Your task to perform on an android device: snooze an email in the gmail app Image 0: 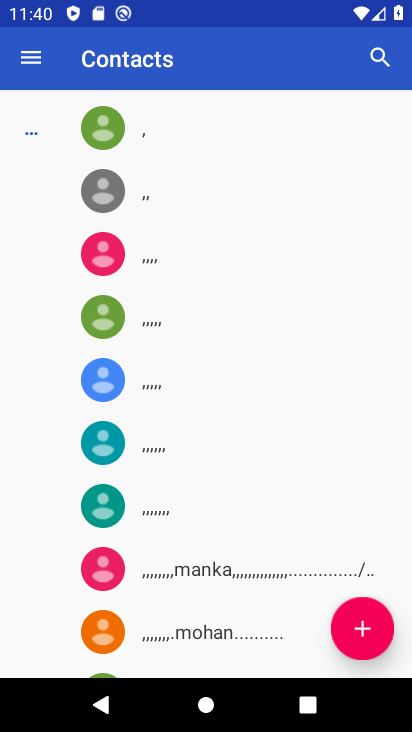
Step 0: press home button
Your task to perform on an android device: snooze an email in the gmail app Image 1: 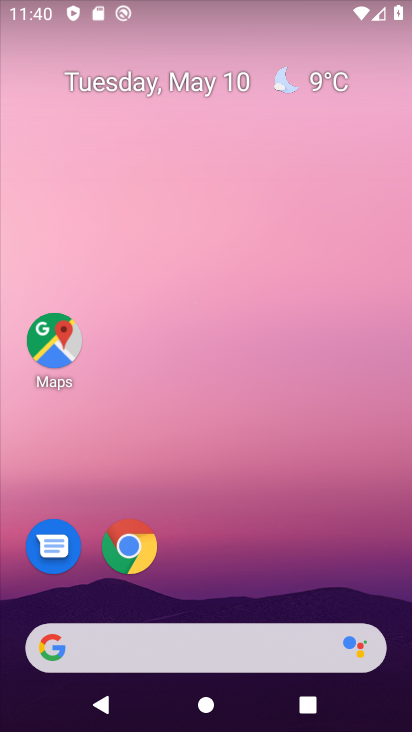
Step 1: drag from (201, 595) to (261, 49)
Your task to perform on an android device: snooze an email in the gmail app Image 2: 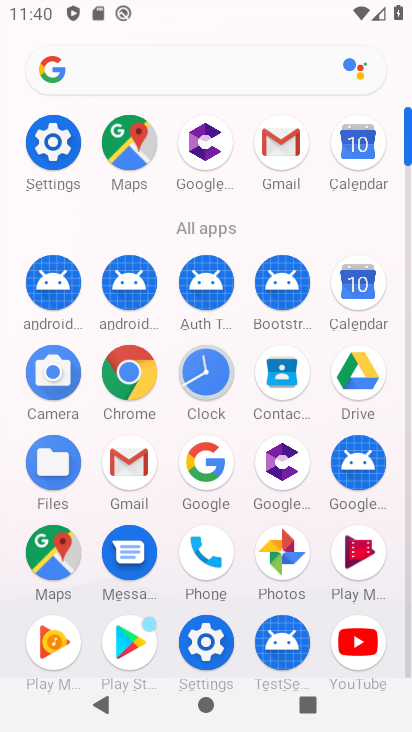
Step 2: click (283, 154)
Your task to perform on an android device: snooze an email in the gmail app Image 3: 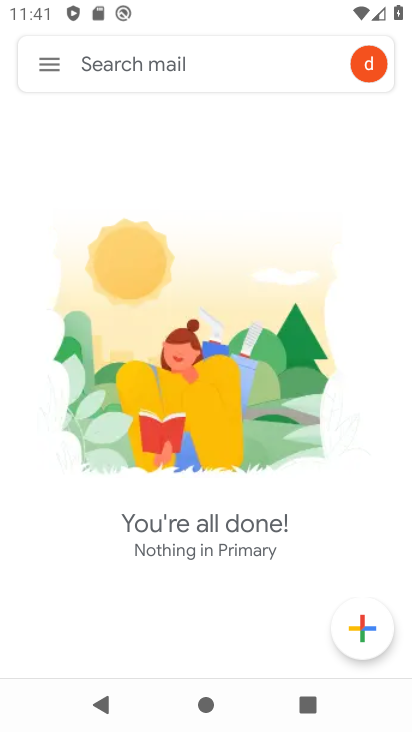
Step 3: task complete